Your task to perform on an android device: move a message to another label in the gmail app Image 0: 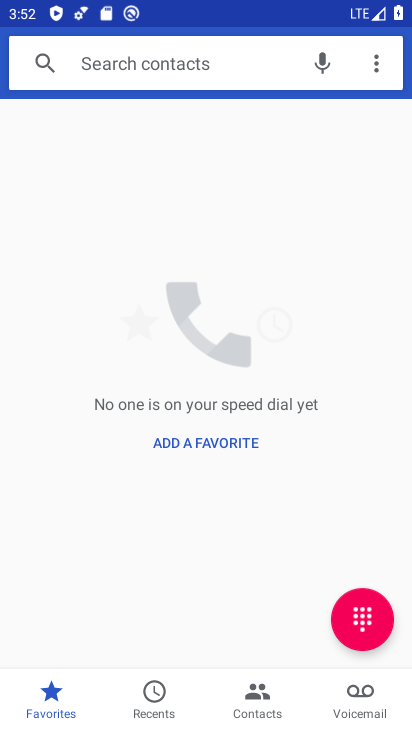
Step 0: press home button
Your task to perform on an android device: move a message to another label in the gmail app Image 1: 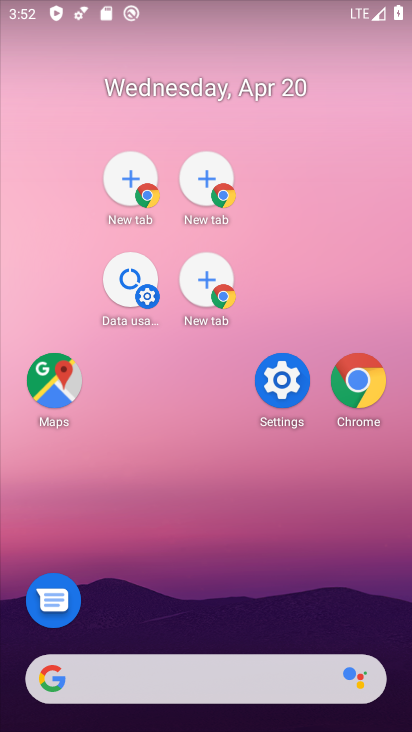
Step 1: click (53, 140)
Your task to perform on an android device: move a message to another label in the gmail app Image 2: 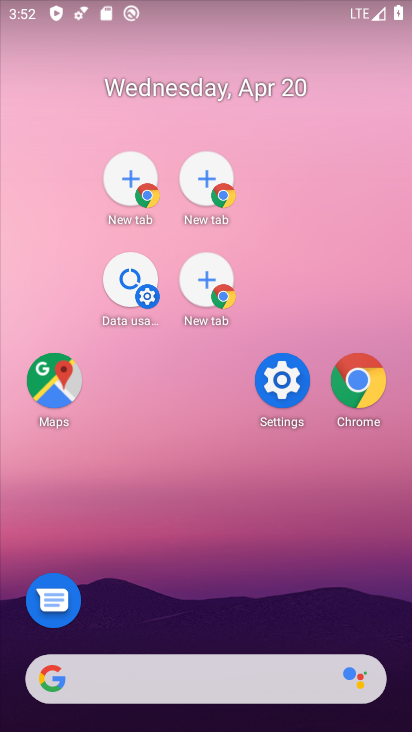
Step 2: drag from (270, 559) to (191, 305)
Your task to perform on an android device: move a message to another label in the gmail app Image 3: 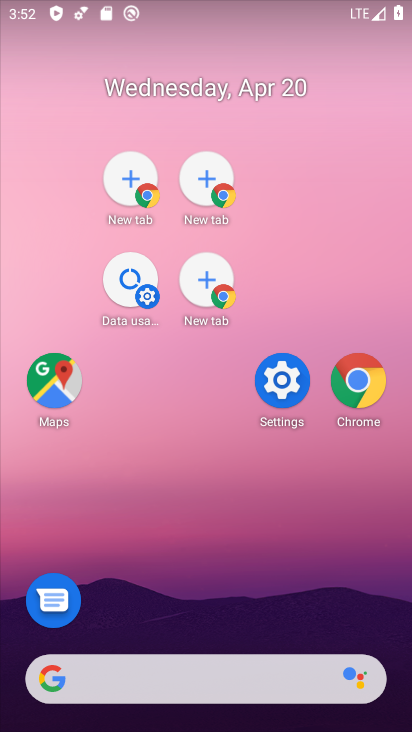
Step 3: drag from (203, 539) to (218, 325)
Your task to perform on an android device: move a message to another label in the gmail app Image 4: 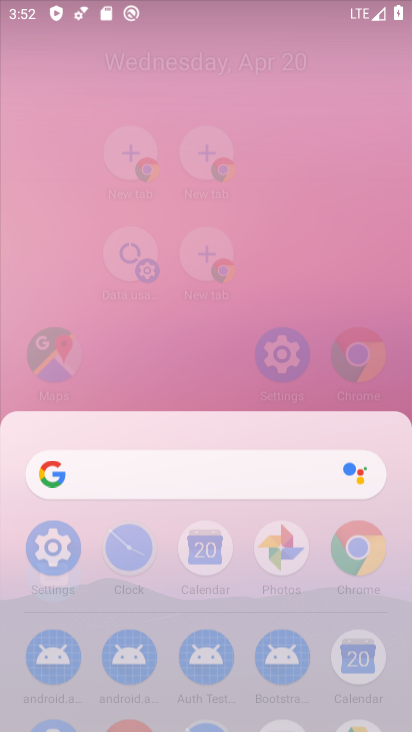
Step 4: click (64, 161)
Your task to perform on an android device: move a message to another label in the gmail app Image 5: 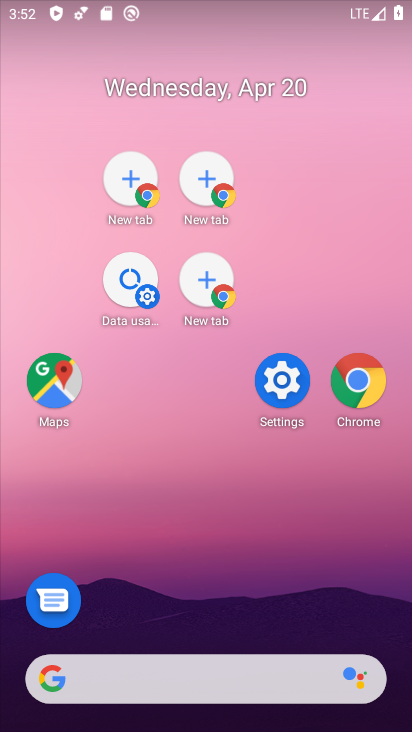
Step 5: drag from (304, 537) to (119, 107)
Your task to perform on an android device: move a message to another label in the gmail app Image 6: 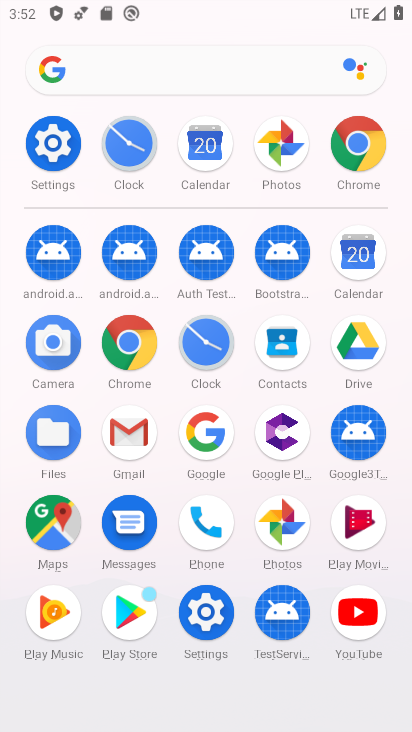
Step 6: click (124, 421)
Your task to perform on an android device: move a message to another label in the gmail app Image 7: 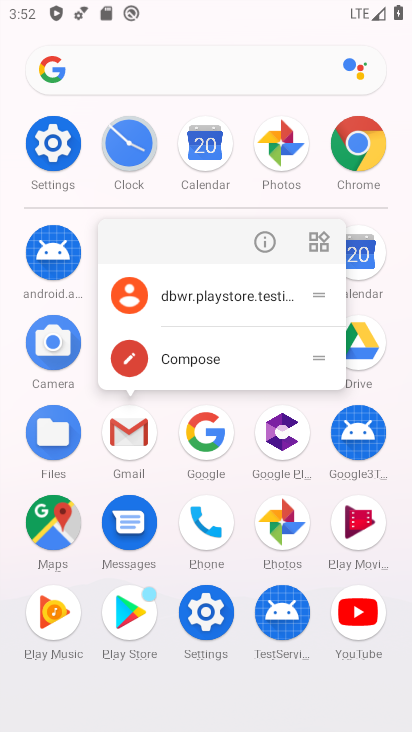
Step 7: click (124, 421)
Your task to perform on an android device: move a message to another label in the gmail app Image 8: 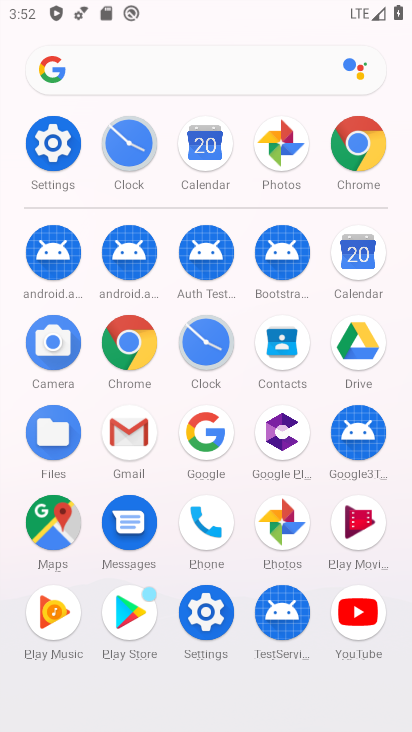
Step 8: click (117, 422)
Your task to perform on an android device: move a message to another label in the gmail app Image 9: 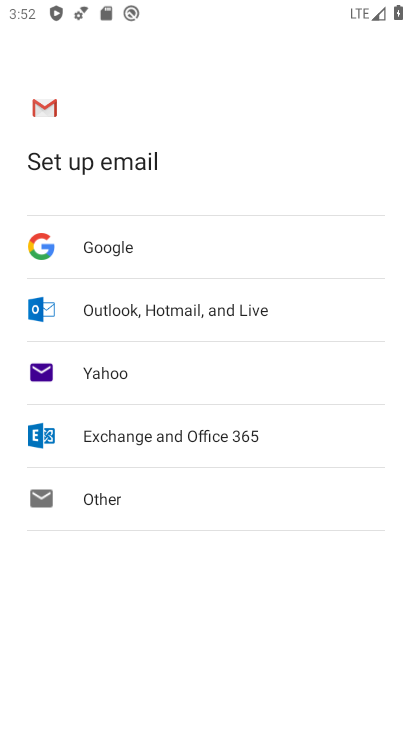
Step 9: press back button
Your task to perform on an android device: move a message to another label in the gmail app Image 10: 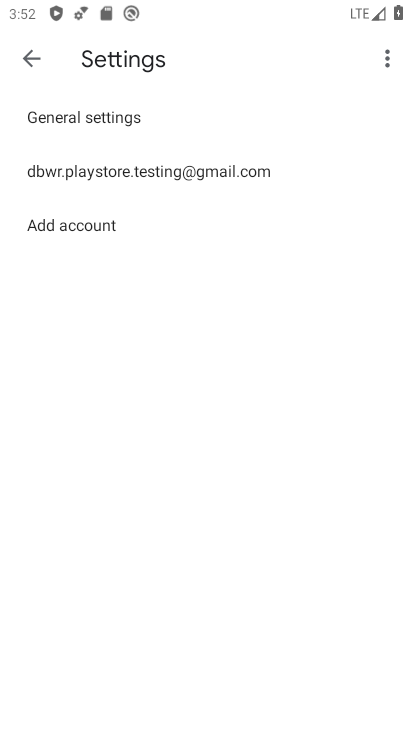
Step 10: click (83, 180)
Your task to perform on an android device: move a message to another label in the gmail app Image 11: 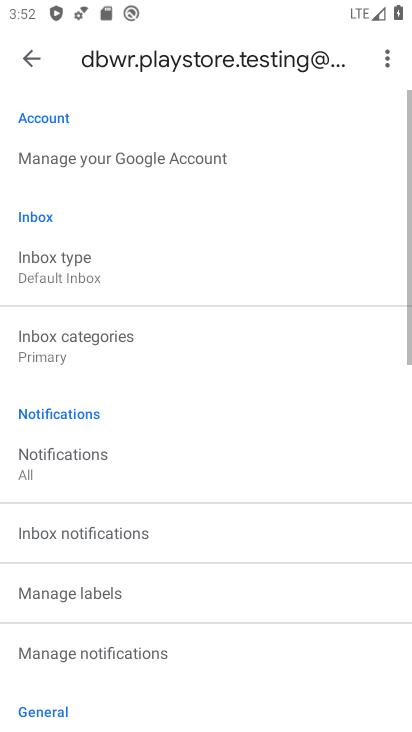
Step 11: click (31, 66)
Your task to perform on an android device: move a message to another label in the gmail app Image 12: 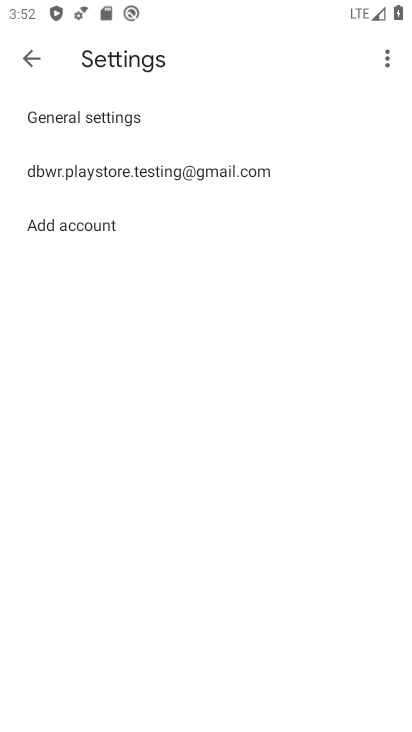
Step 12: click (31, 66)
Your task to perform on an android device: move a message to another label in the gmail app Image 13: 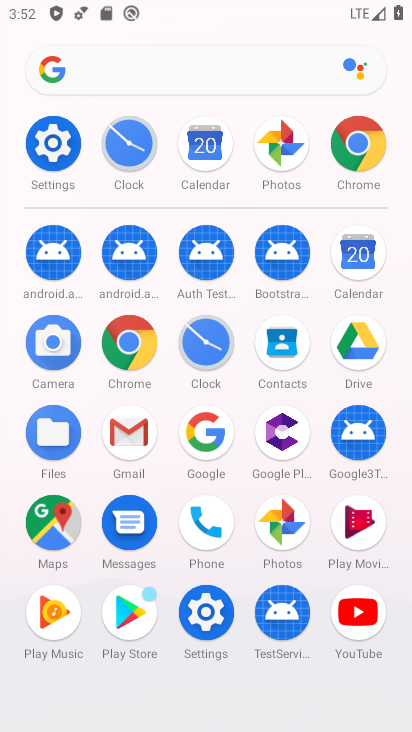
Step 13: click (141, 429)
Your task to perform on an android device: move a message to another label in the gmail app Image 14: 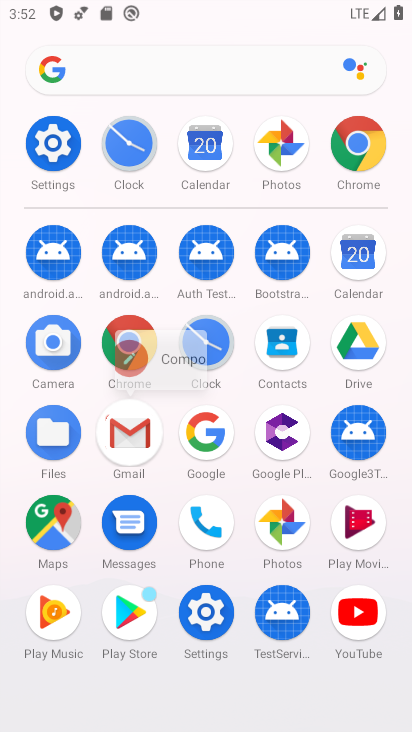
Step 14: click (141, 429)
Your task to perform on an android device: move a message to another label in the gmail app Image 15: 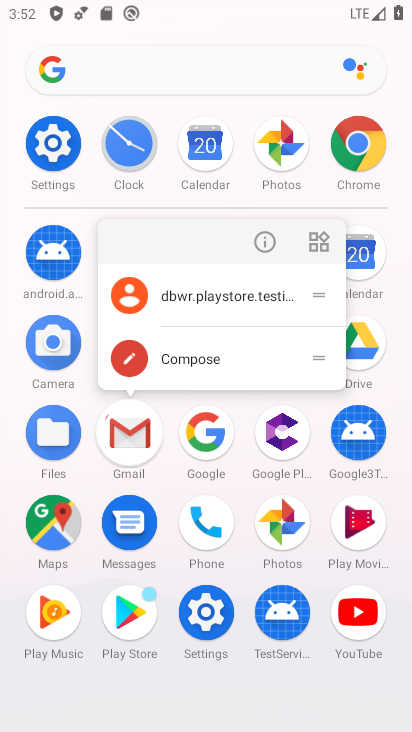
Step 15: click (141, 429)
Your task to perform on an android device: move a message to another label in the gmail app Image 16: 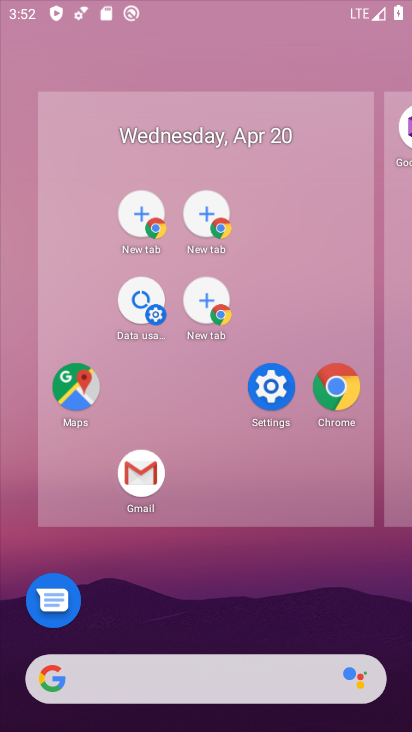
Step 16: click (121, 432)
Your task to perform on an android device: move a message to another label in the gmail app Image 17: 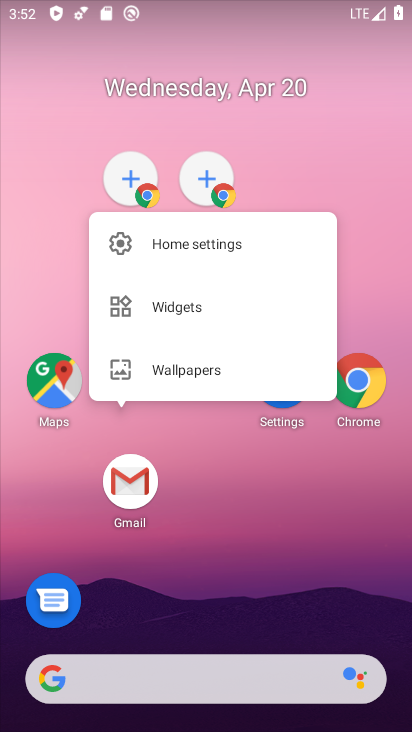
Step 17: click (120, 482)
Your task to perform on an android device: move a message to another label in the gmail app Image 18: 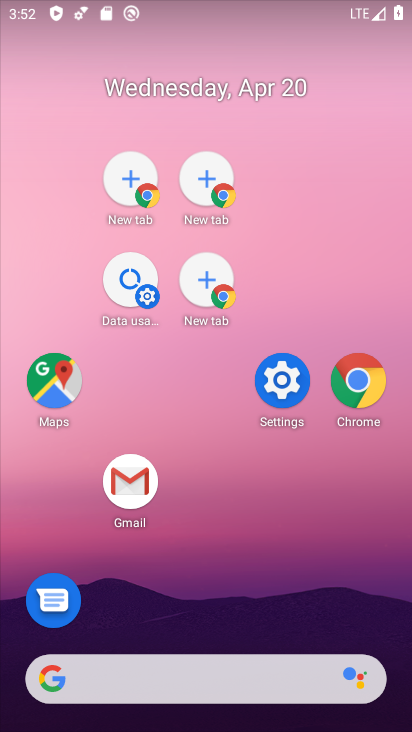
Step 18: click (119, 466)
Your task to perform on an android device: move a message to another label in the gmail app Image 19: 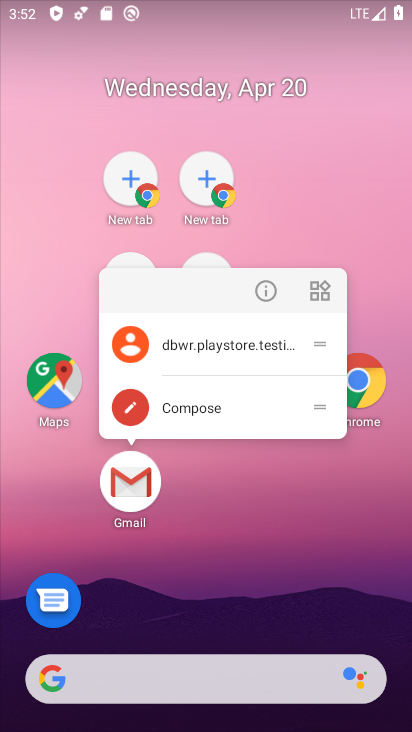
Step 19: drag from (92, 419) to (144, 530)
Your task to perform on an android device: move a message to another label in the gmail app Image 20: 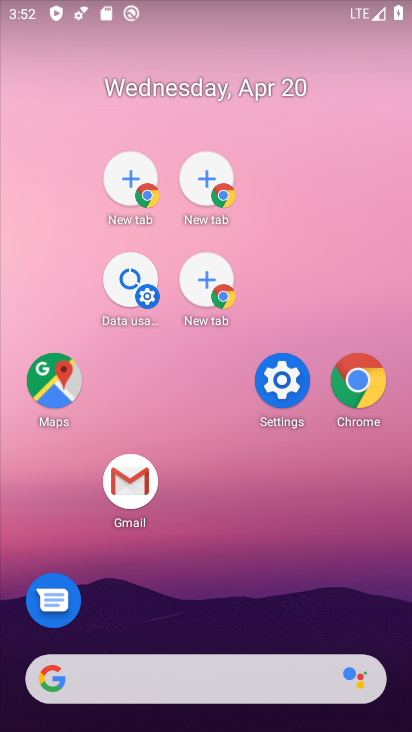
Step 20: drag from (122, 478) to (145, 510)
Your task to perform on an android device: move a message to another label in the gmail app Image 21: 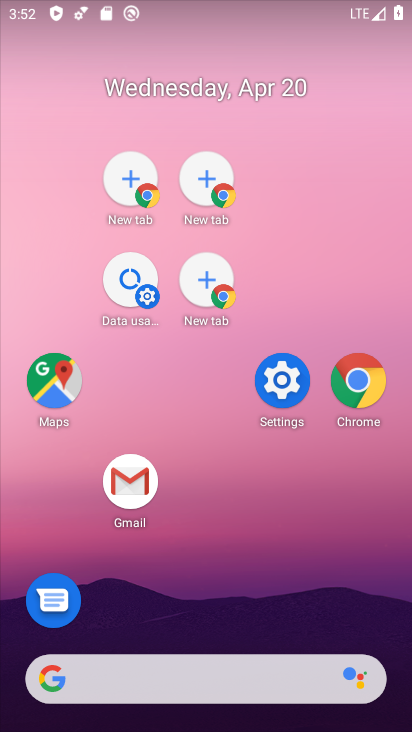
Step 21: click (131, 480)
Your task to perform on an android device: move a message to another label in the gmail app Image 22: 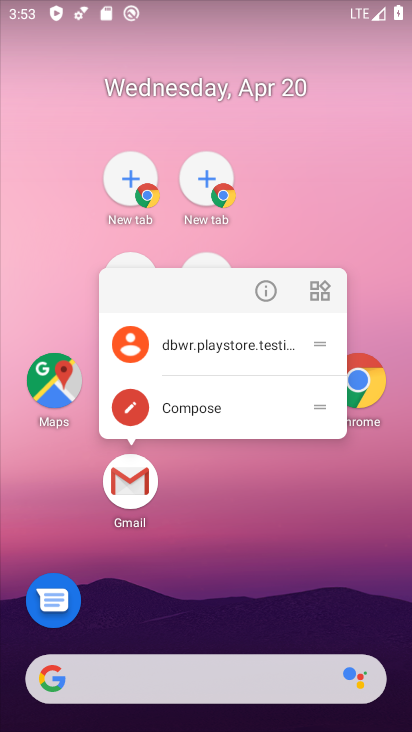
Step 22: click (127, 475)
Your task to perform on an android device: move a message to another label in the gmail app Image 23: 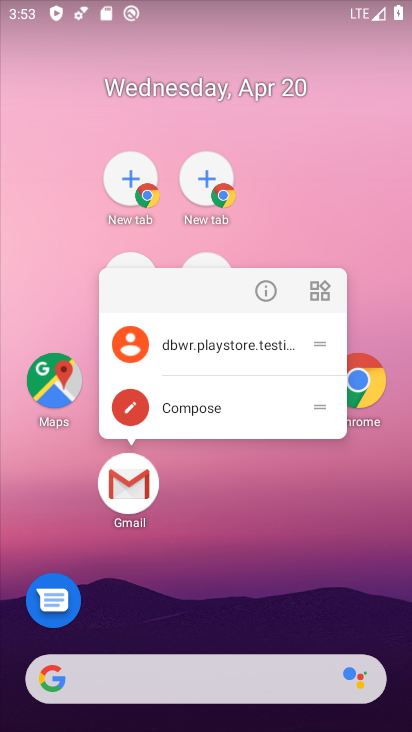
Step 23: drag from (124, 477) to (128, 528)
Your task to perform on an android device: move a message to another label in the gmail app Image 24: 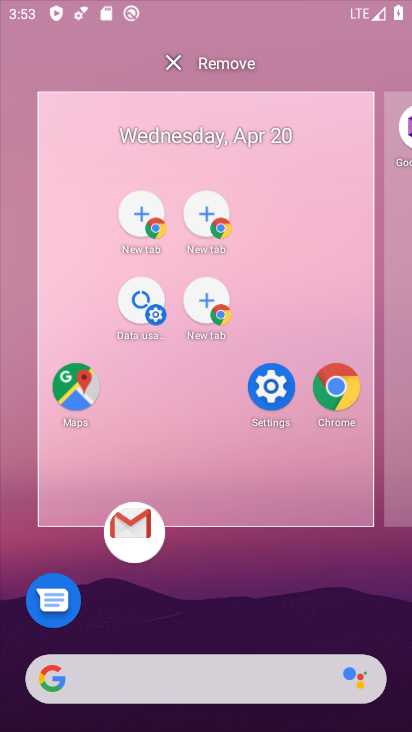
Step 24: drag from (132, 464) to (120, 530)
Your task to perform on an android device: move a message to another label in the gmail app Image 25: 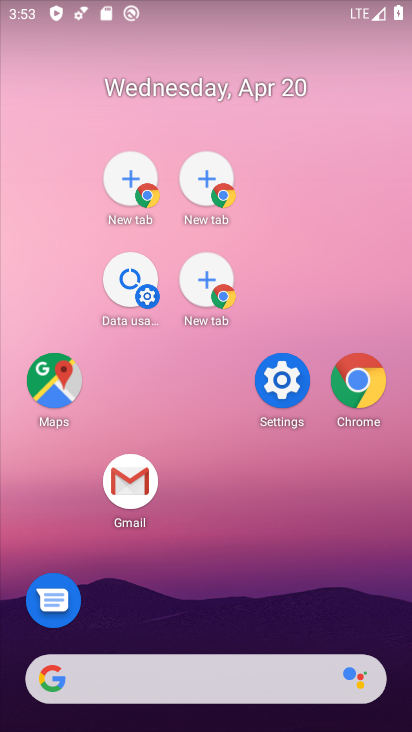
Step 25: click (132, 481)
Your task to perform on an android device: move a message to another label in the gmail app Image 26: 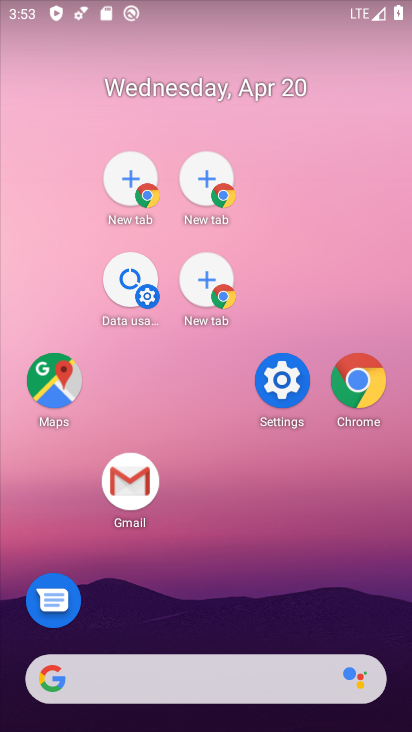
Step 26: click (122, 493)
Your task to perform on an android device: move a message to another label in the gmail app Image 27: 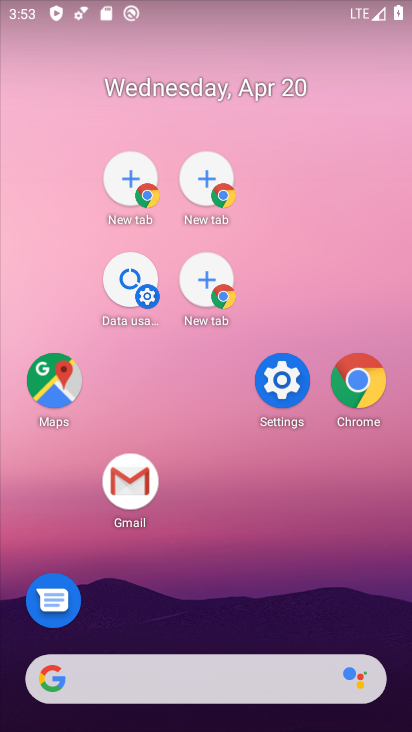
Step 27: drag from (132, 481) to (237, 423)
Your task to perform on an android device: move a message to another label in the gmail app Image 28: 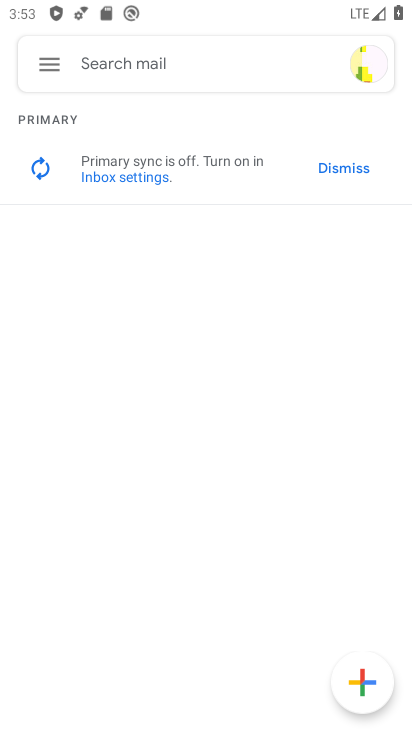
Step 28: click (52, 62)
Your task to perform on an android device: move a message to another label in the gmail app Image 29: 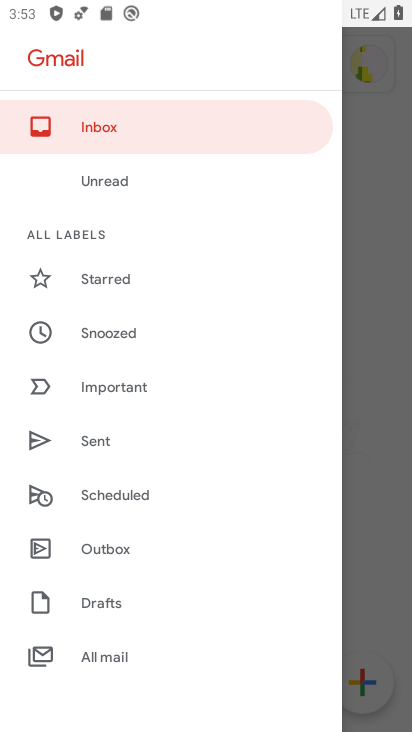
Step 29: click (100, 657)
Your task to perform on an android device: move a message to another label in the gmail app Image 30: 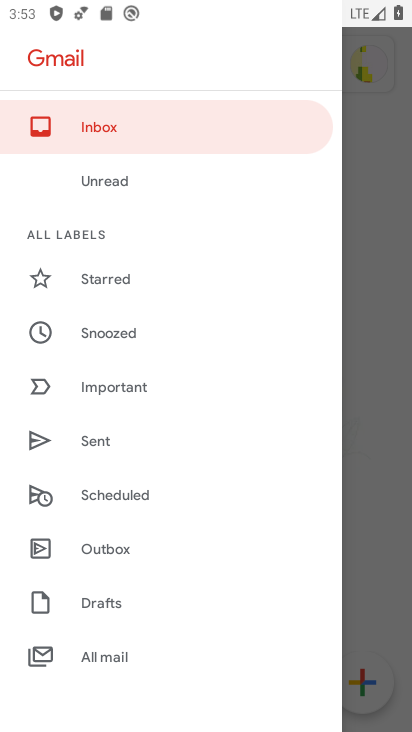
Step 30: click (100, 657)
Your task to perform on an android device: move a message to another label in the gmail app Image 31: 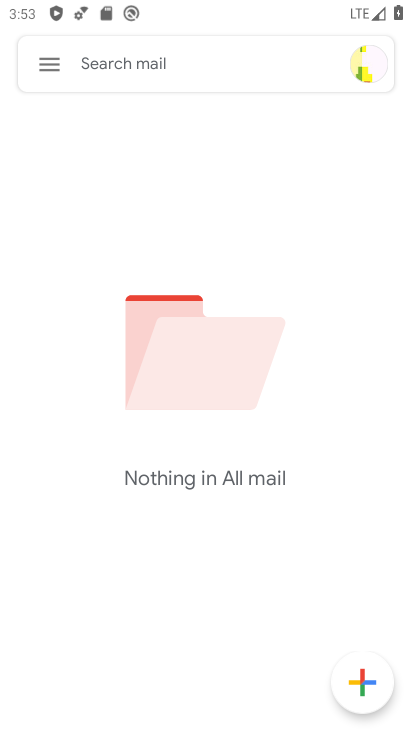
Step 31: task complete